Your task to perform on an android device: turn off location history Image 0: 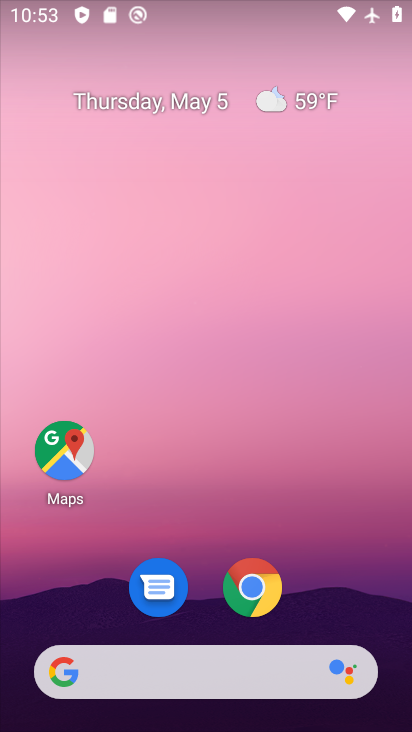
Step 0: drag from (306, 600) to (230, 3)
Your task to perform on an android device: turn off location history Image 1: 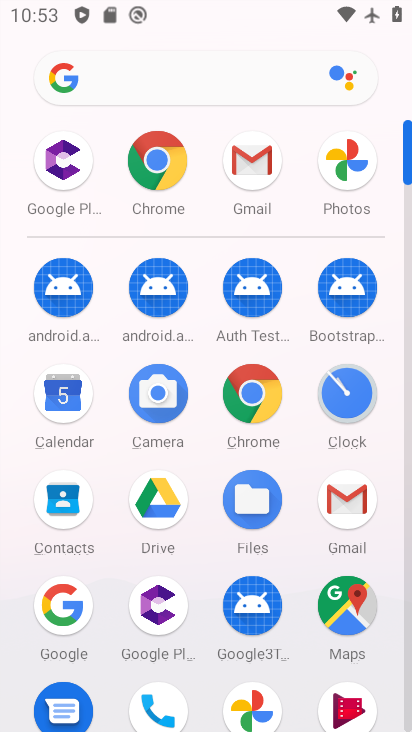
Step 1: drag from (3, 540) to (7, 266)
Your task to perform on an android device: turn off location history Image 2: 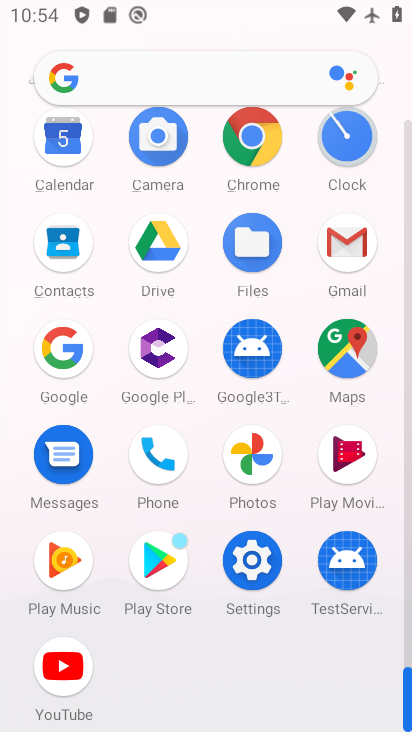
Step 2: click (254, 559)
Your task to perform on an android device: turn off location history Image 3: 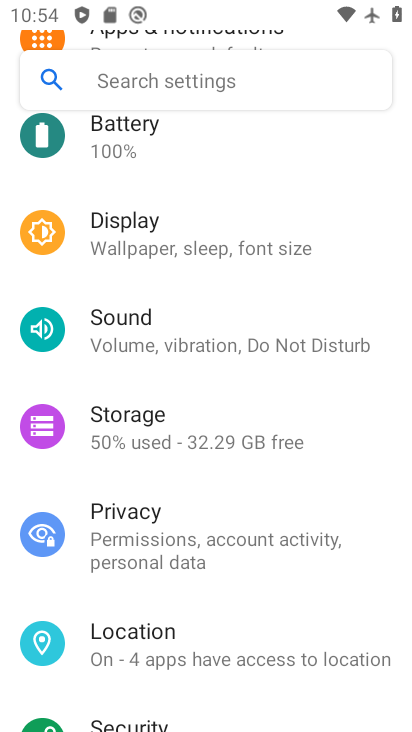
Step 3: click (184, 633)
Your task to perform on an android device: turn off location history Image 4: 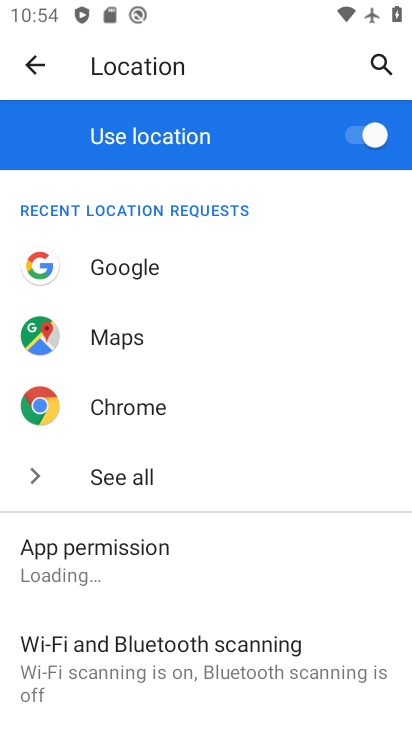
Step 4: drag from (269, 546) to (241, 126)
Your task to perform on an android device: turn off location history Image 5: 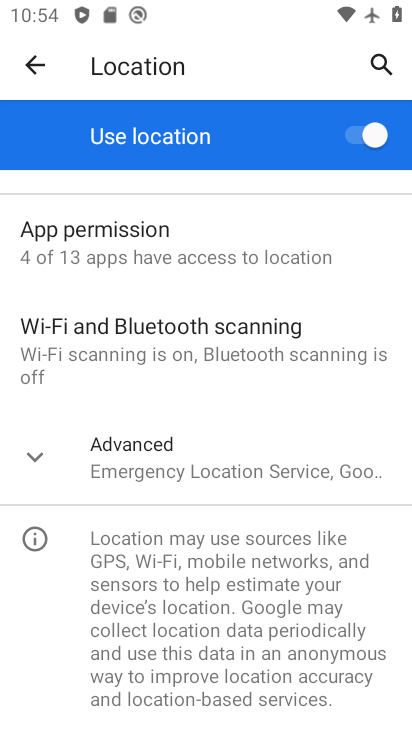
Step 5: click (35, 464)
Your task to perform on an android device: turn off location history Image 6: 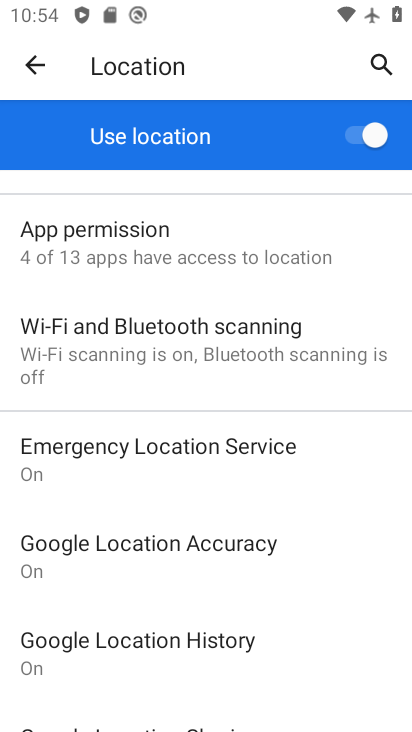
Step 6: click (206, 637)
Your task to perform on an android device: turn off location history Image 7: 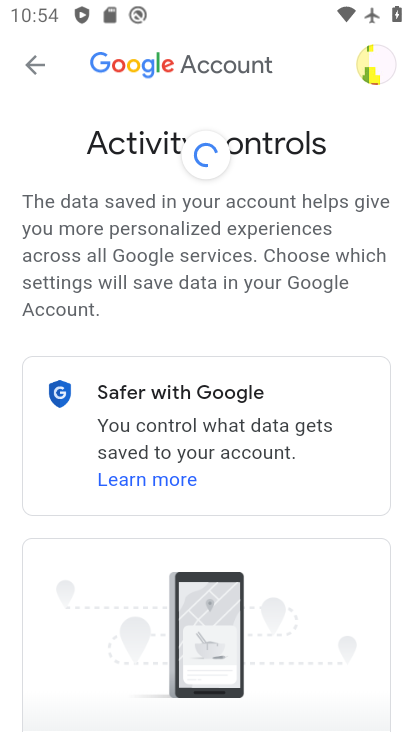
Step 7: task complete